Your task to perform on an android device: Open calendar and show me the third week of next month Image 0: 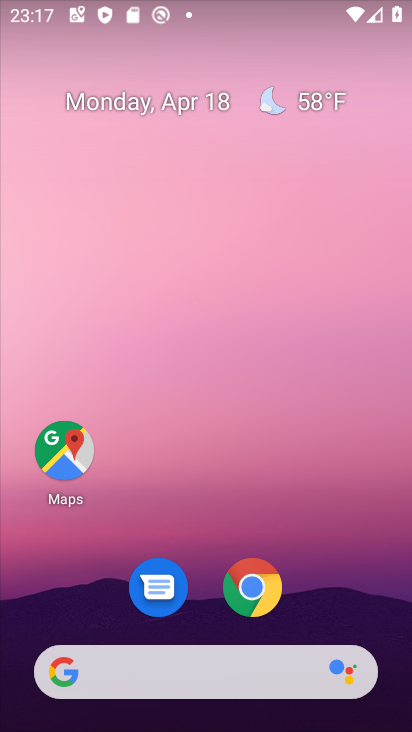
Step 0: drag from (185, 577) to (307, 86)
Your task to perform on an android device: Open calendar and show me the third week of next month Image 1: 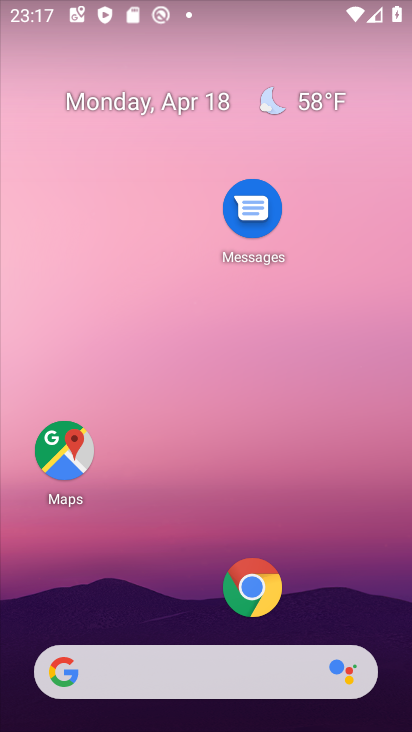
Step 1: drag from (242, 228) to (257, 151)
Your task to perform on an android device: Open calendar and show me the third week of next month Image 2: 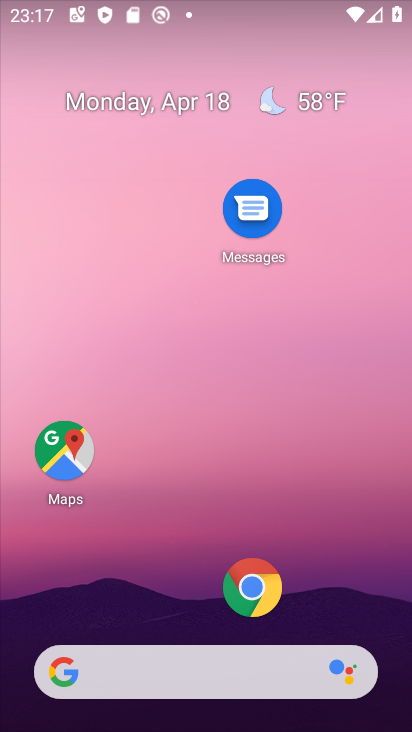
Step 2: drag from (146, 627) to (318, 118)
Your task to perform on an android device: Open calendar and show me the third week of next month Image 3: 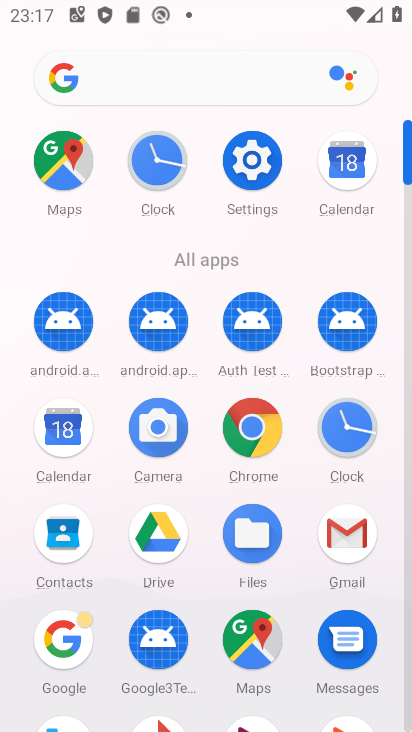
Step 3: click (58, 436)
Your task to perform on an android device: Open calendar and show me the third week of next month Image 4: 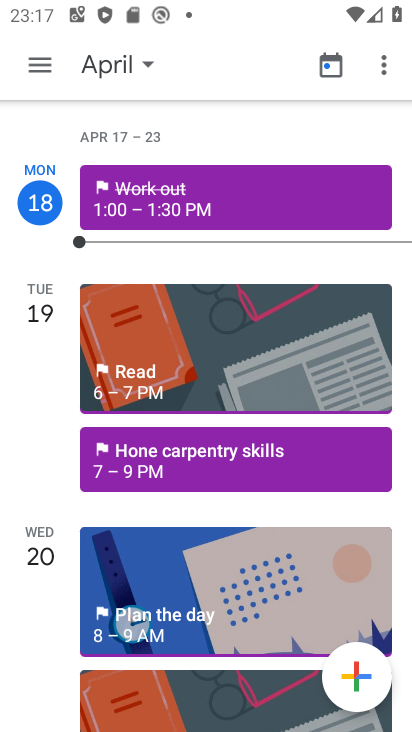
Step 4: click (115, 67)
Your task to perform on an android device: Open calendar and show me the third week of next month Image 5: 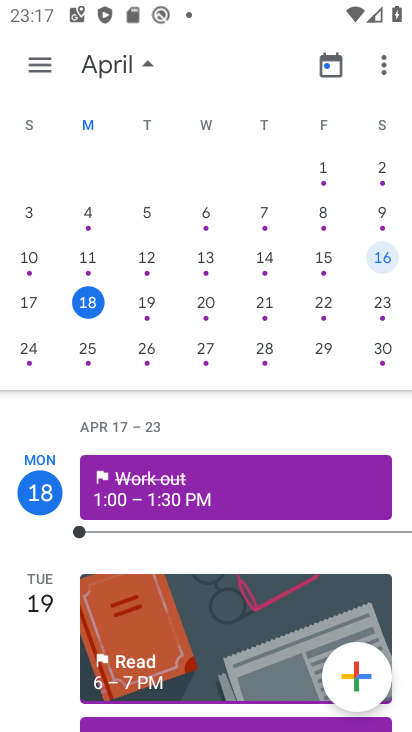
Step 5: drag from (353, 298) to (14, 290)
Your task to perform on an android device: Open calendar and show me the third week of next month Image 6: 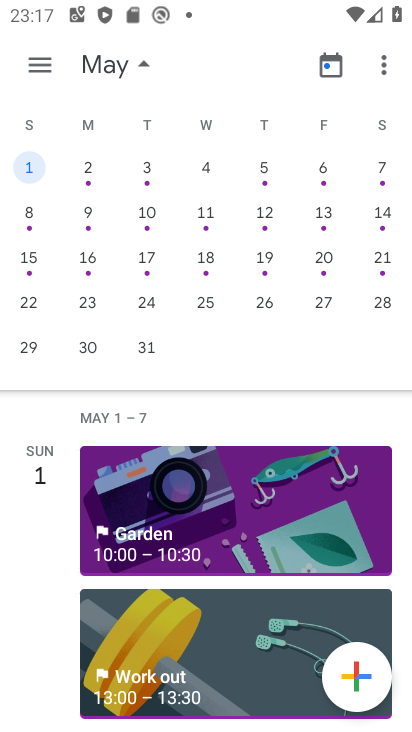
Step 6: click (36, 258)
Your task to perform on an android device: Open calendar and show me the third week of next month Image 7: 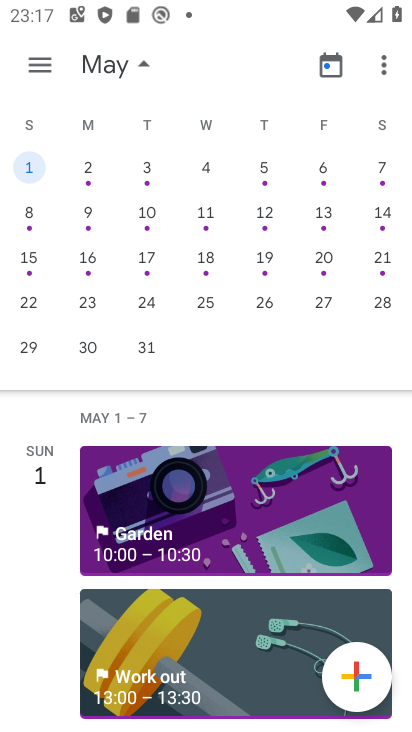
Step 7: click (39, 261)
Your task to perform on an android device: Open calendar and show me the third week of next month Image 8: 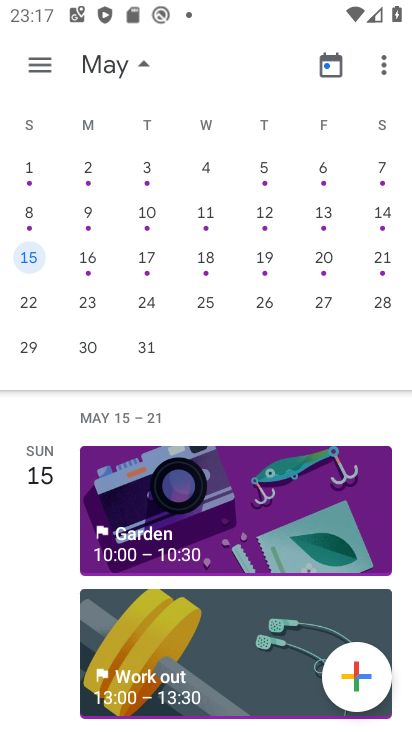
Step 8: click (43, 70)
Your task to perform on an android device: Open calendar and show me the third week of next month Image 9: 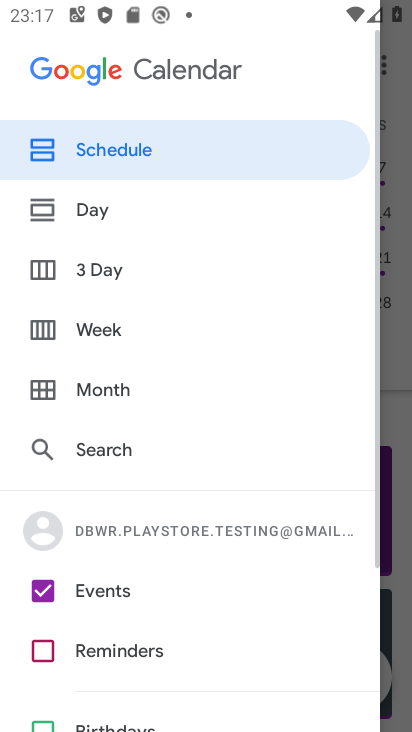
Step 9: click (154, 323)
Your task to perform on an android device: Open calendar and show me the third week of next month Image 10: 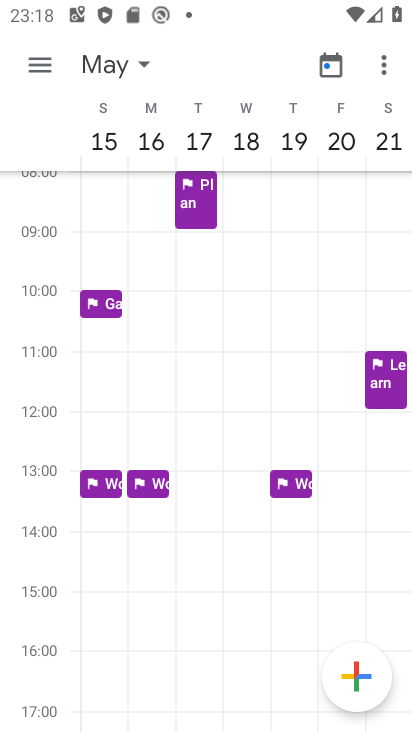
Step 10: task complete